Your task to perform on an android device: View the shopping cart on walmart. Add "dell alienware" to the cart on walmart Image 0: 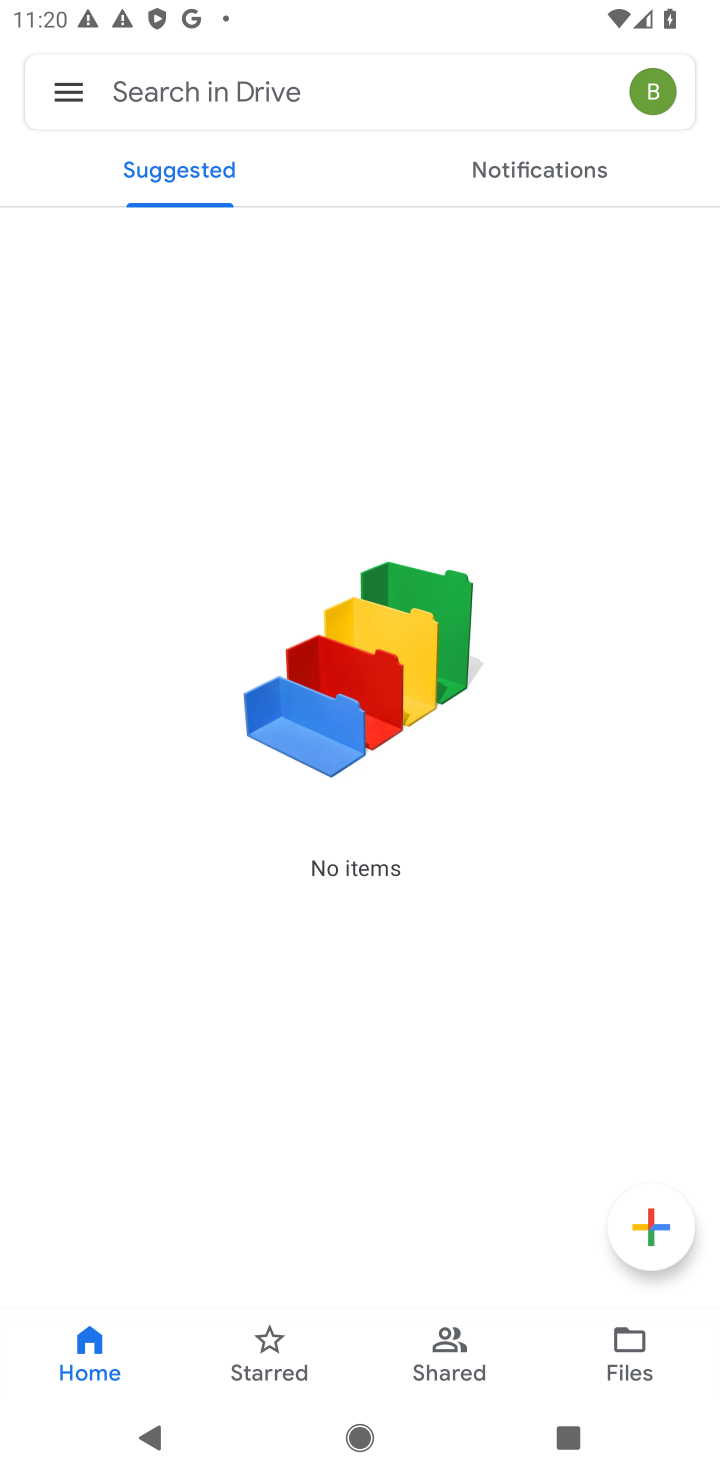
Step 0: press home button
Your task to perform on an android device: View the shopping cart on walmart. Add "dell alienware" to the cart on walmart Image 1: 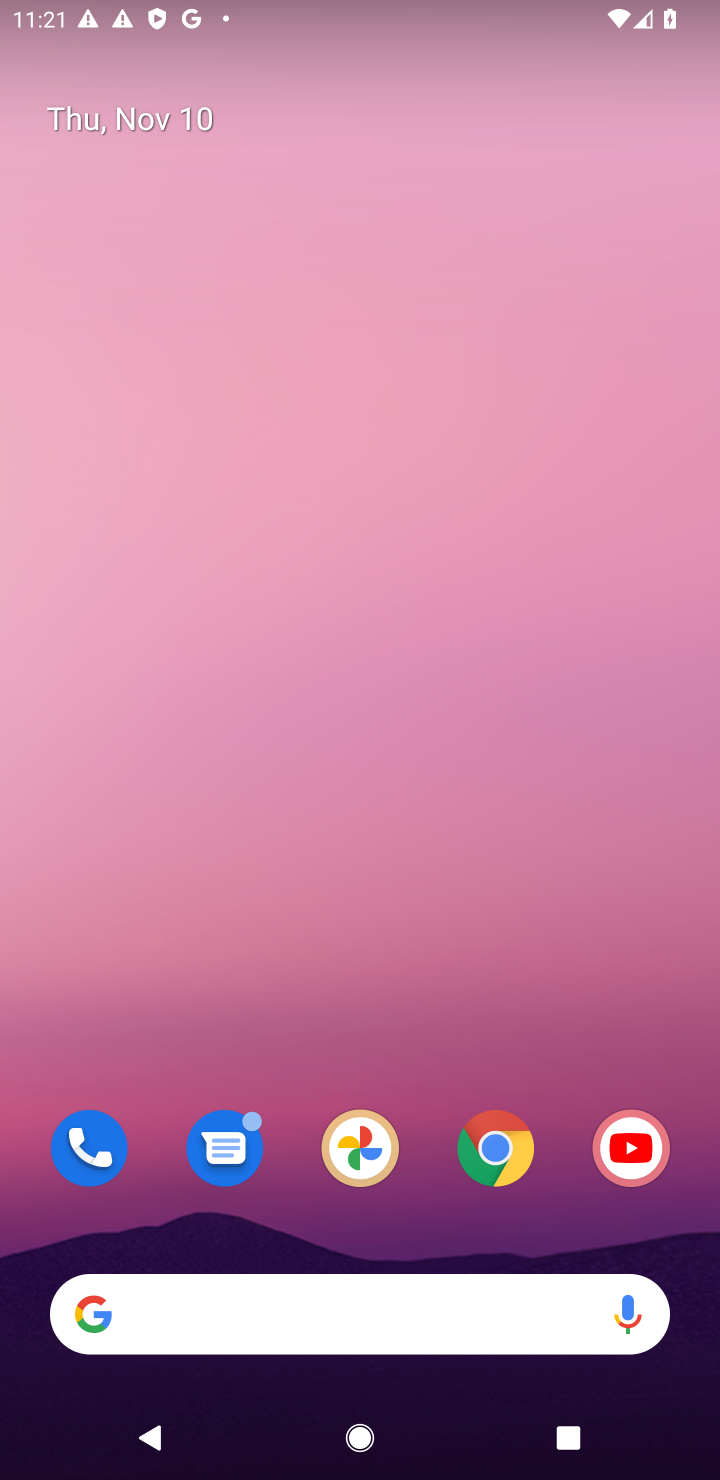
Step 1: click (480, 1154)
Your task to perform on an android device: View the shopping cart on walmart. Add "dell alienware" to the cart on walmart Image 2: 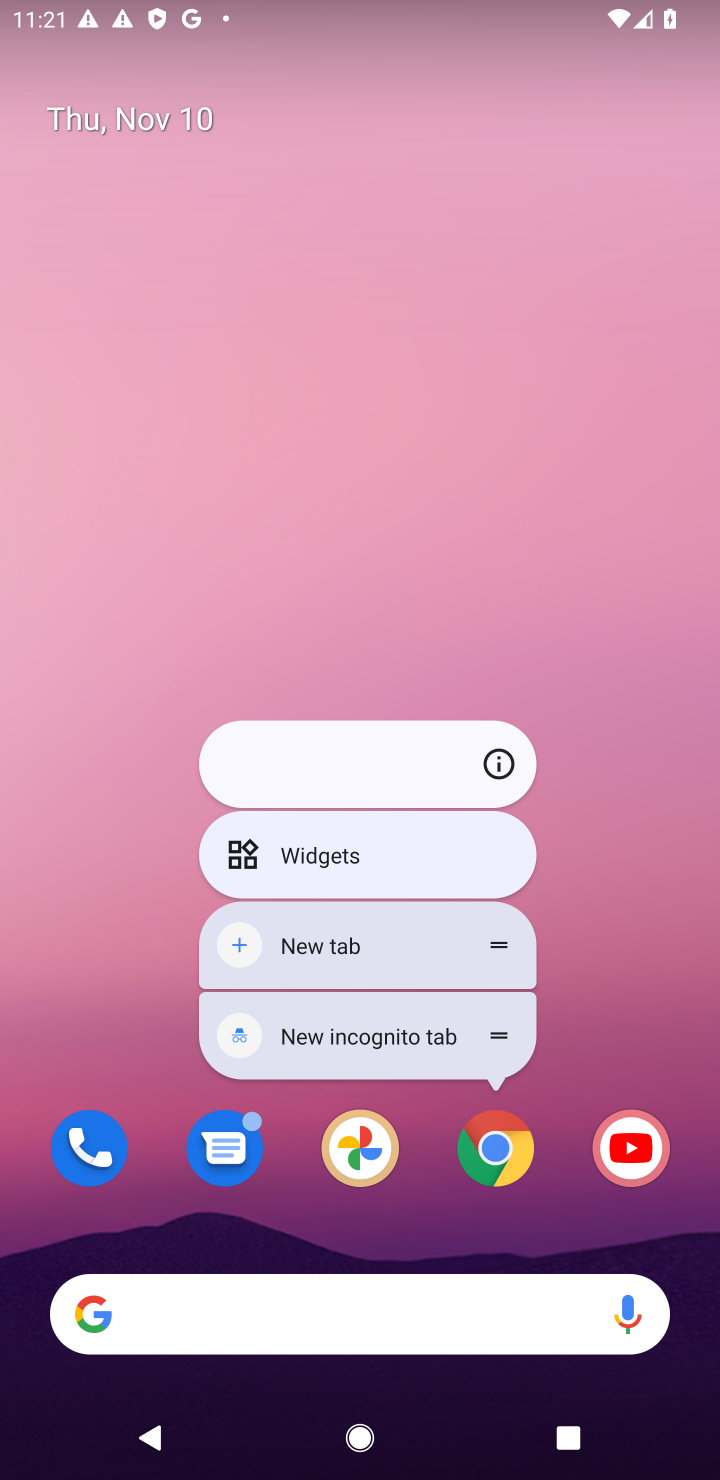
Step 2: click (489, 1152)
Your task to perform on an android device: View the shopping cart on walmart. Add "dell alienware" to the cart on walmart Image 3: 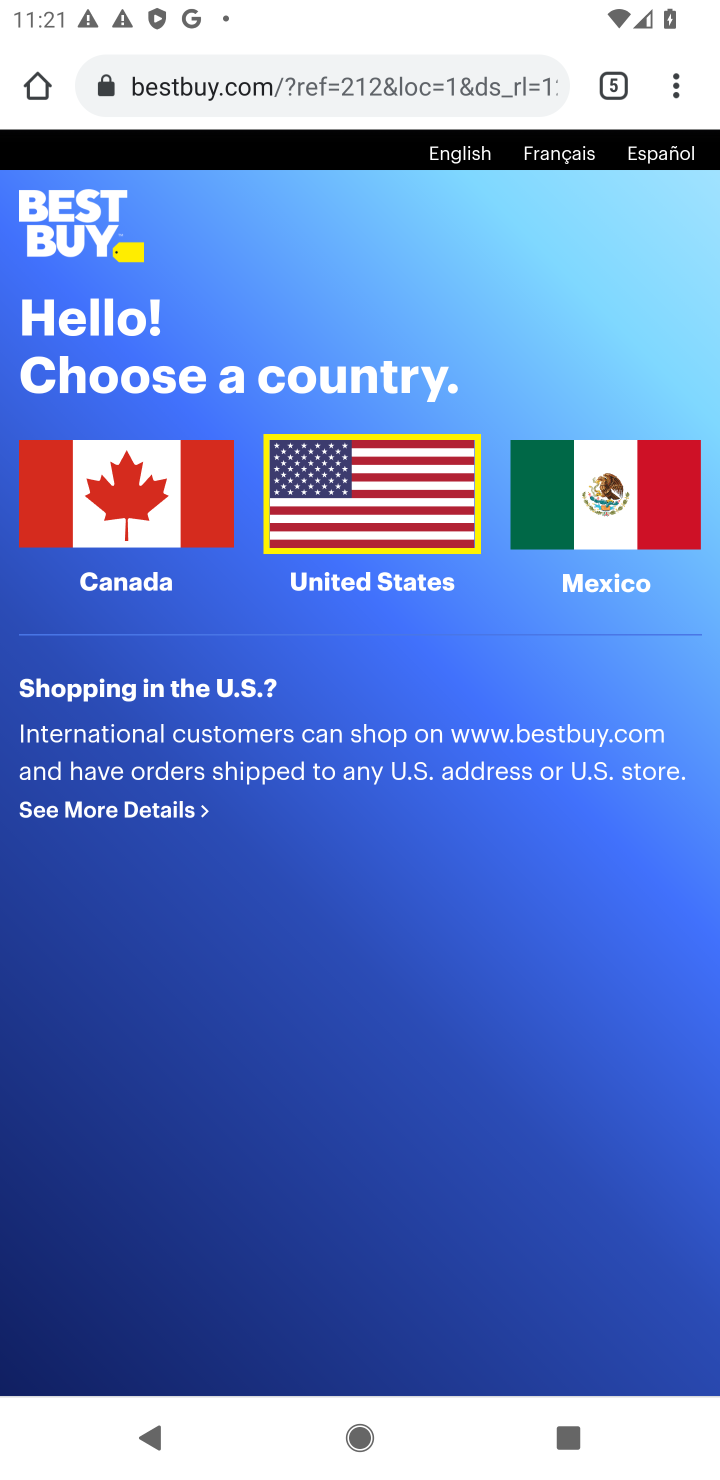
Step 3: click (622, 86)
Your task to perform on an android device: View the shopping cart on walmart. Add "dell alienware" to the cart on walmart Image 4: 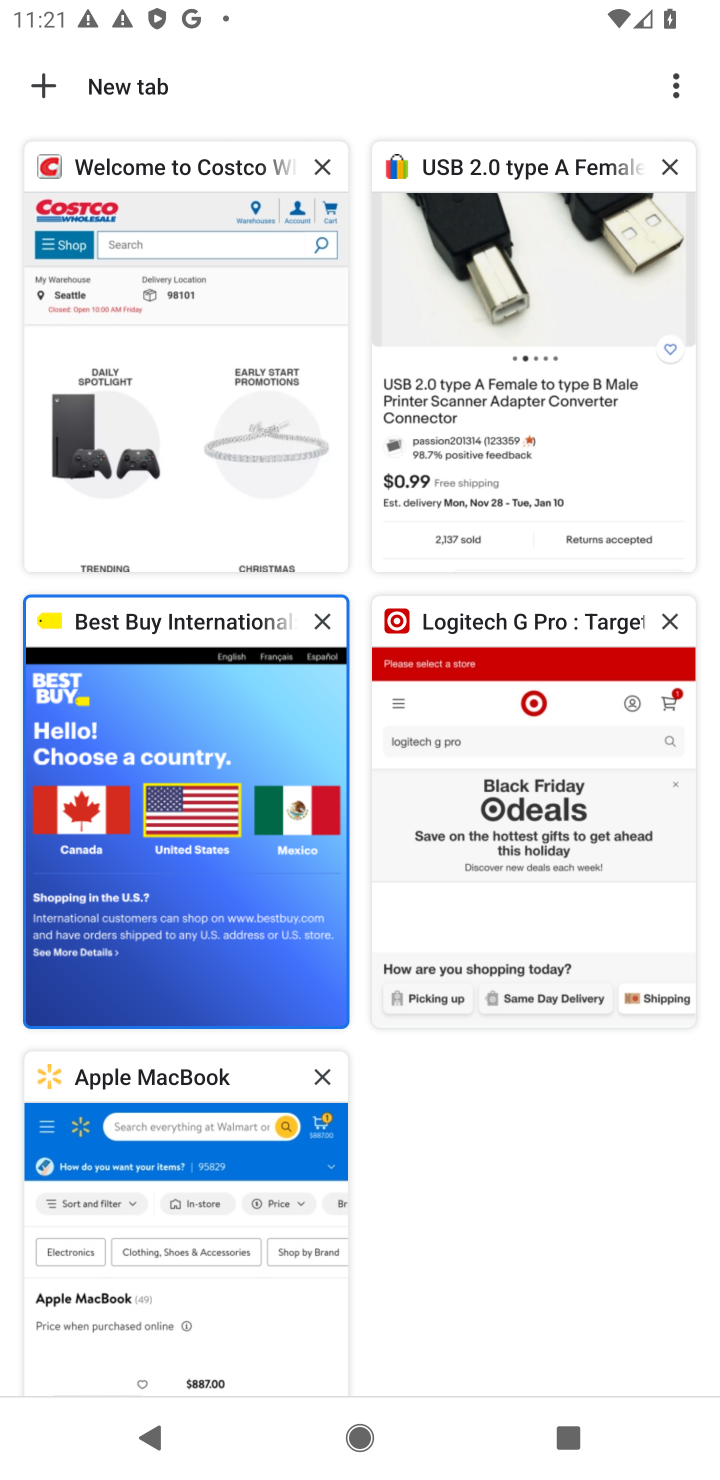
Step 4: click (251, 1122)
Your task to perform on an android device: View the shopping cart on walmart. Add "dell alienware" to the cart on walmart Image 5: 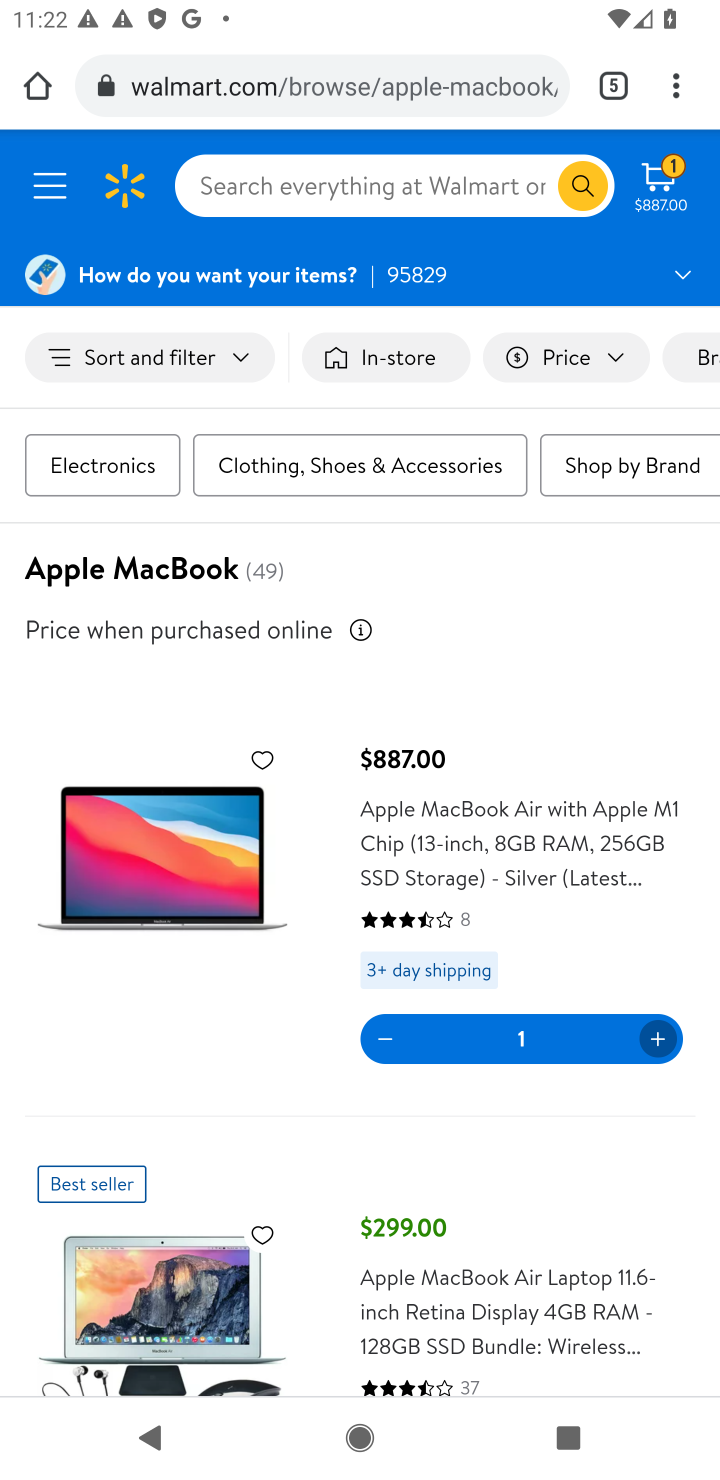
Step 5: click (376, 185)
Your task to perform on an android device: View the shopping cart on walmart. Add "dell alienware" to the cart on walmart Image 6: 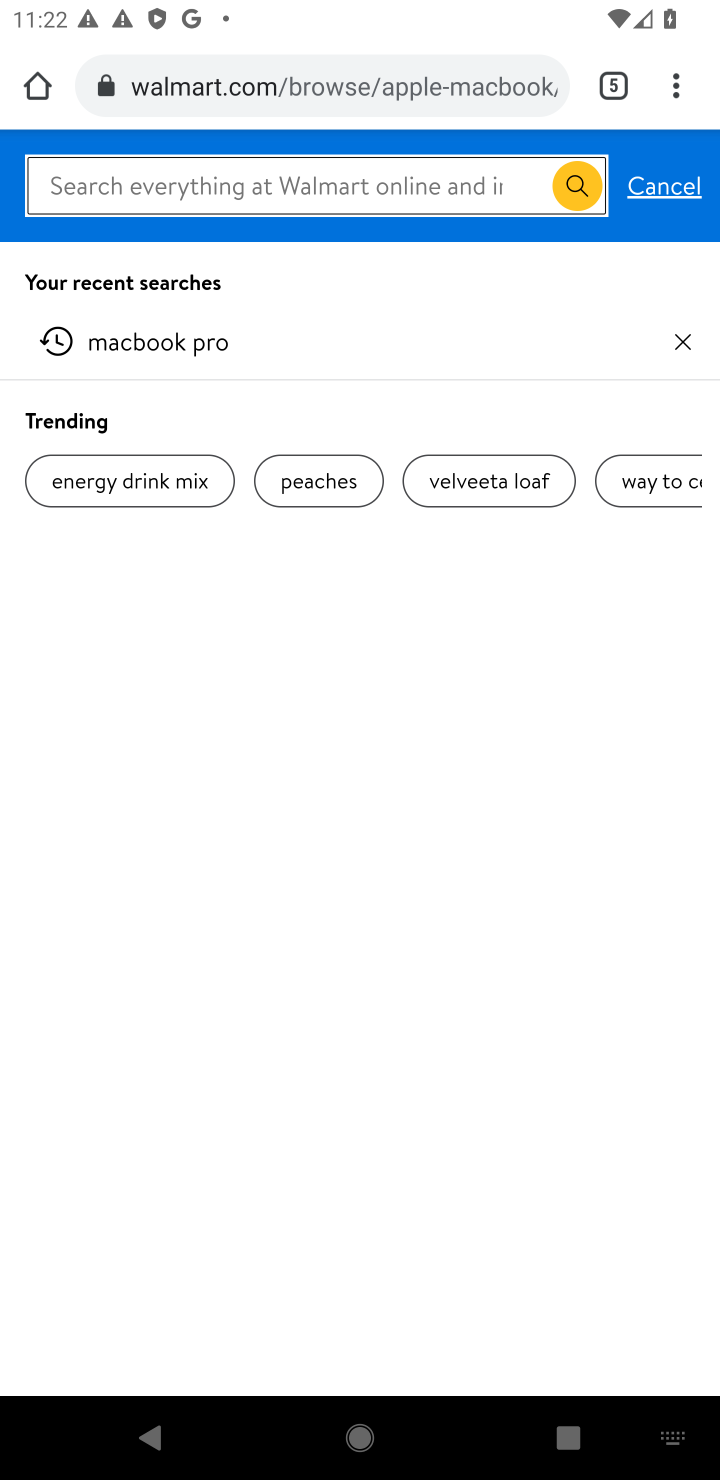
Step 6: type "dell alienware"
Your task to perform on an android device: View the shopping cart on walmart. Add "dell alienware" to the cart on walmart Image 7: 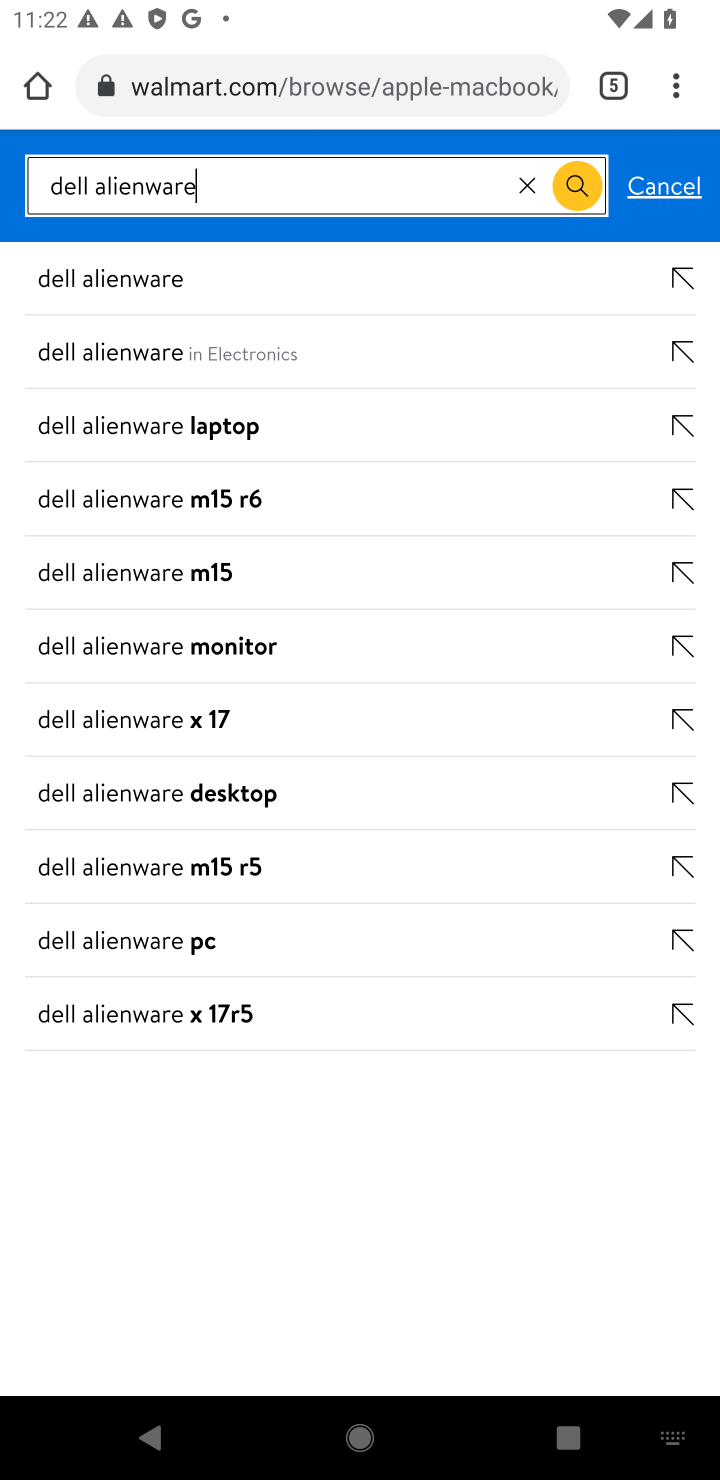
Step 7: click (136, 349)
Your task to perform on an android device: View the shopping cart on walmart. Add "dell alienware" to the cart on walmart Image 8: 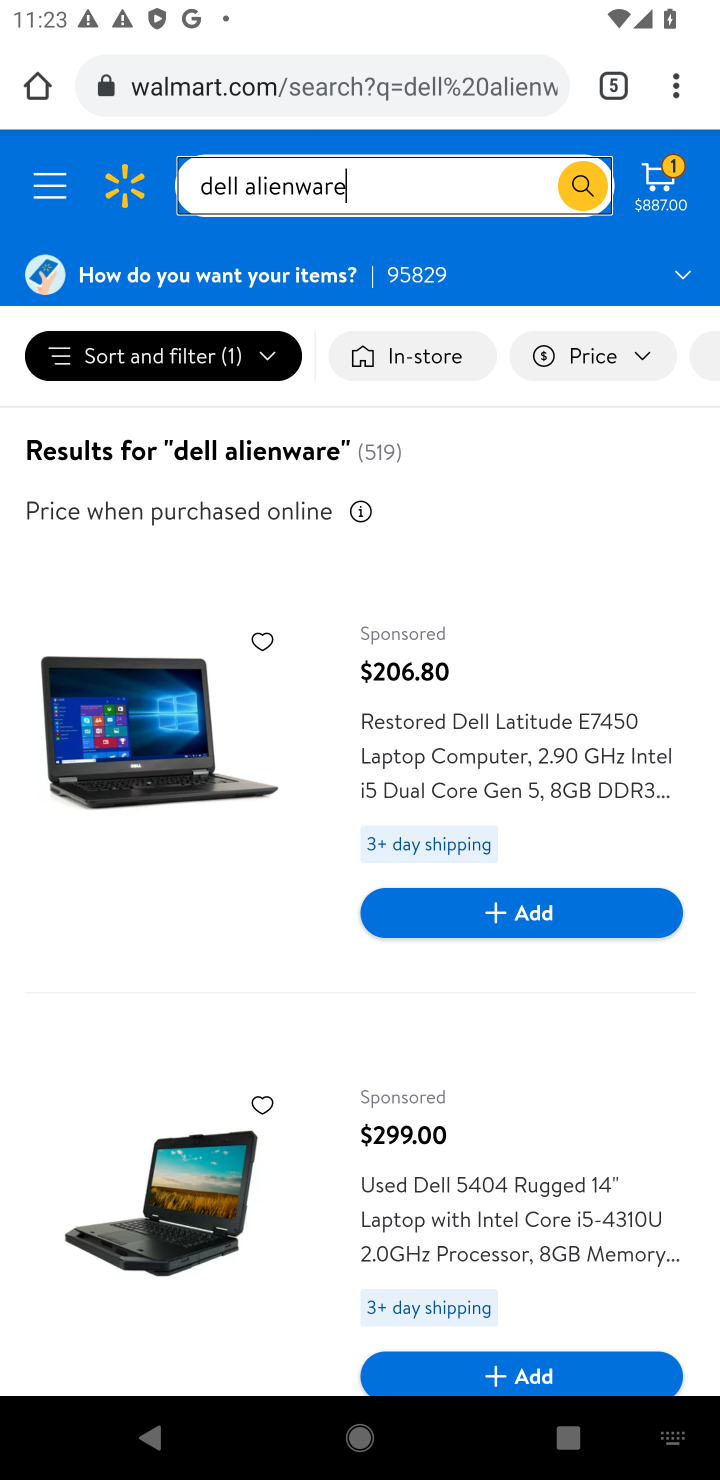
Step 8: drag from (577, 1182) to (614, 955)
Your task to perform on an android device: View the shopping cart on walmart. Add "dell alienware" to the cart on walmart Image 9: 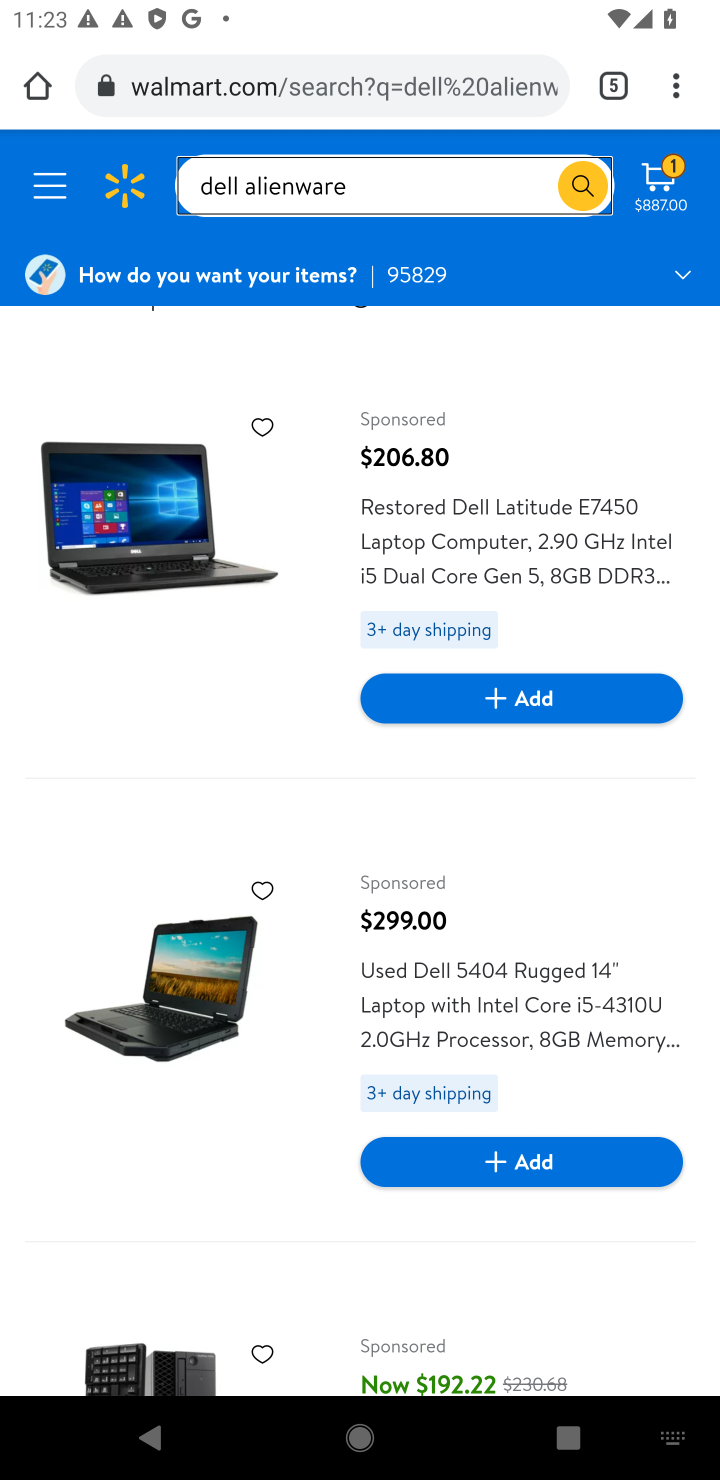
Step 9: drag from (511, 1369) to (707, 395)
Your task to perform on an android device: View the shopping cart on walmart. Add "dell alienware" to the cart on walmart Image 10: 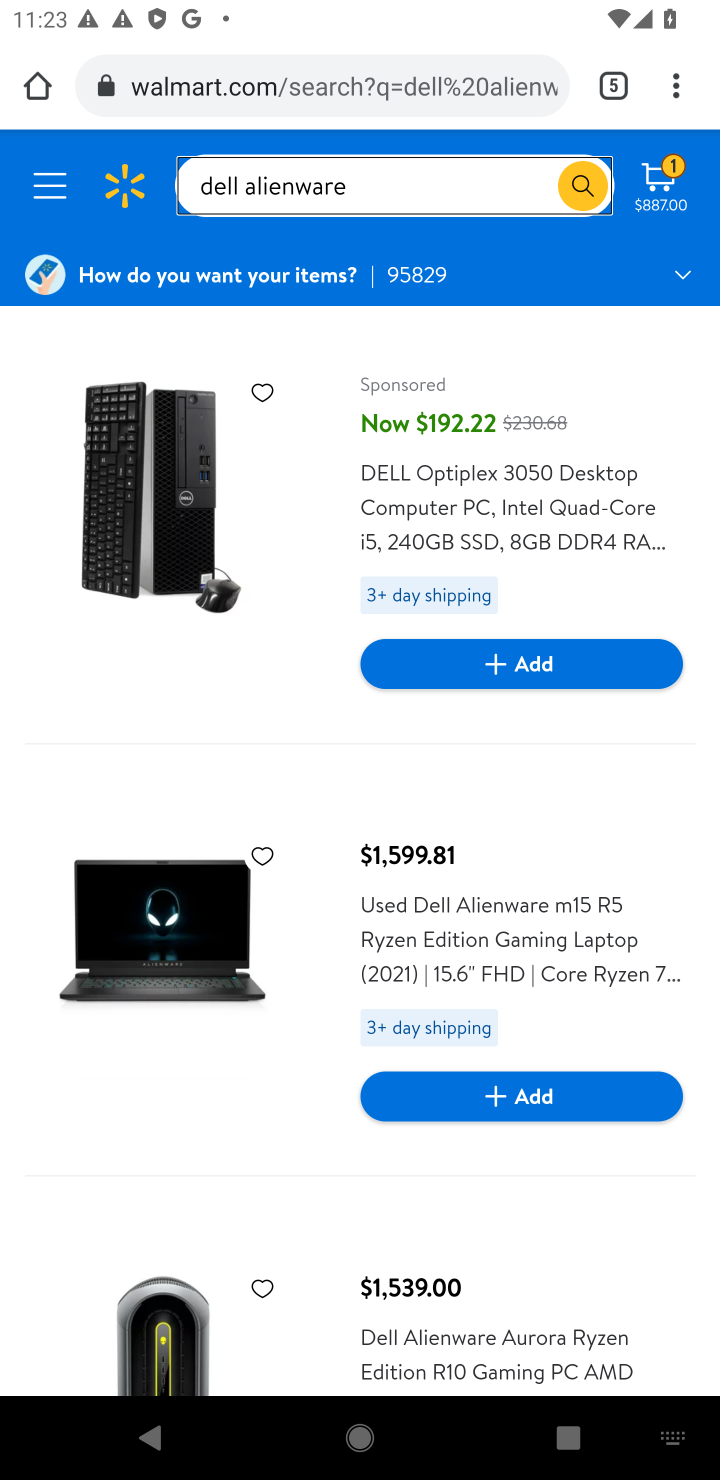
Step 10: click (518, 1102)
Your task to perform on an android device: View the shopping cart on walmart. Add "dell alienware" to the cart on walmart Image 11: 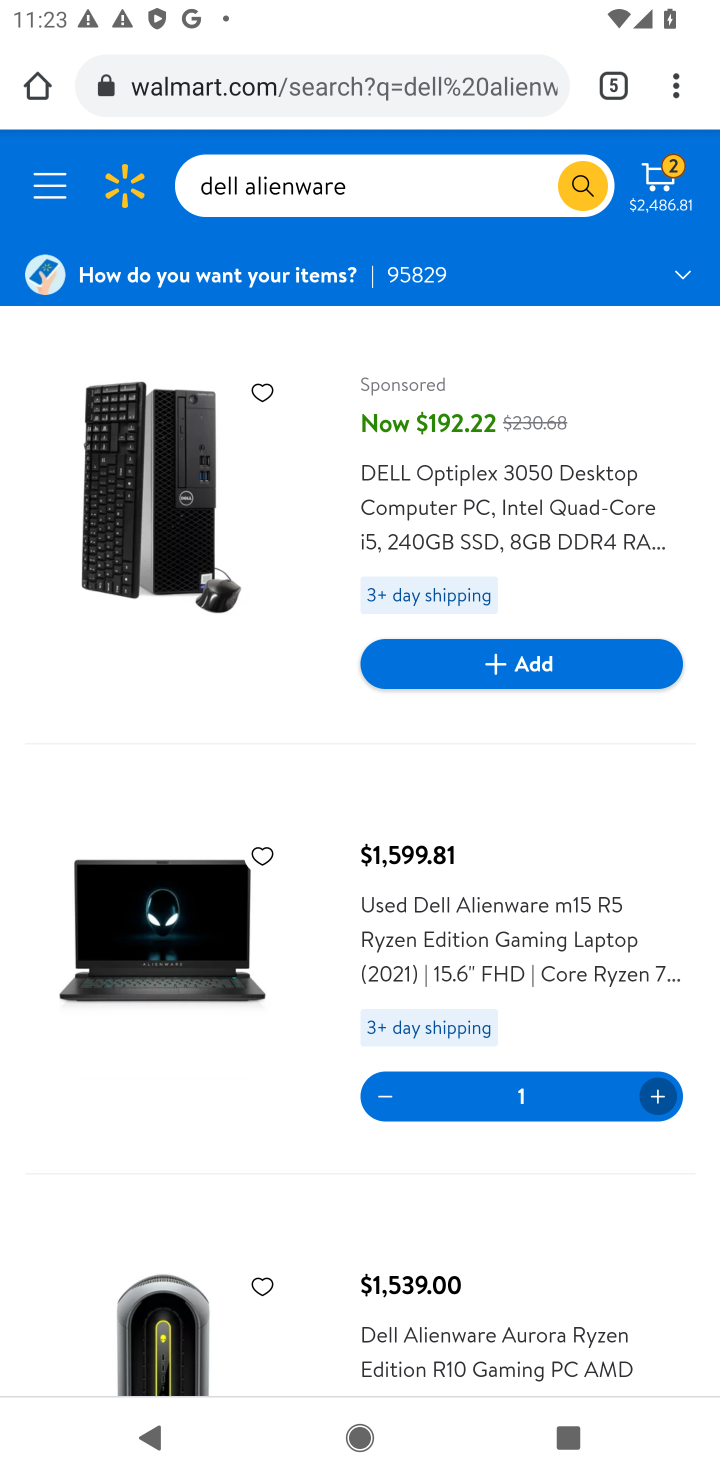
Step 11: task complete